Your task to perform on an android device: What's the weather? Image 0: 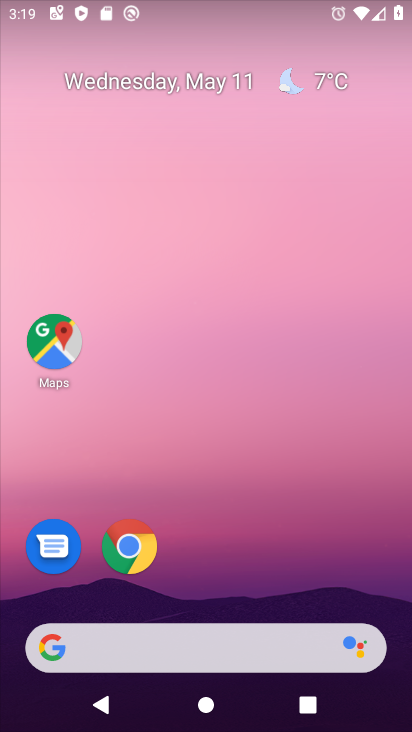
Step 0: drag from (218, 644) to (275, 56)
Your task to perform on an android device: What's the weather? Image 1: 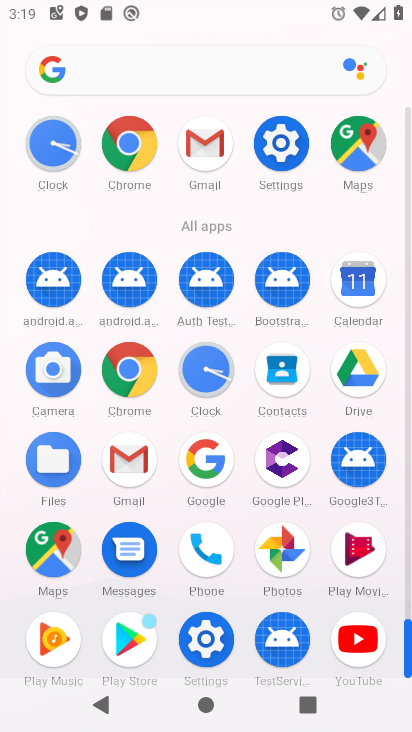
Step 1: click (145, 368)
Your task to perform on an android device: What's the weather? Image 2: 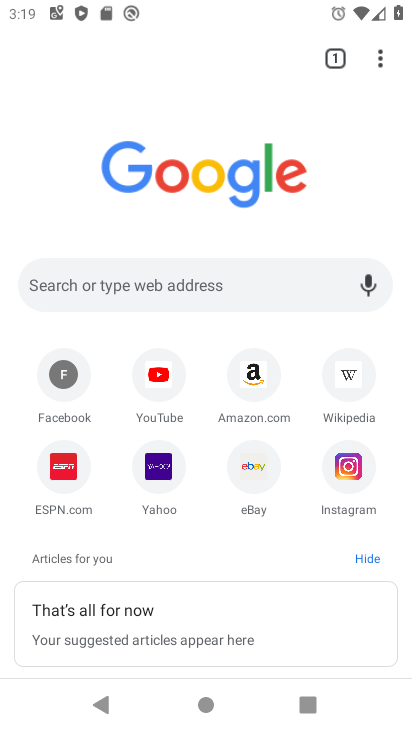
Step 2: click (241, 283)
Your task to perform on an android device: What's the weather? Image 3: 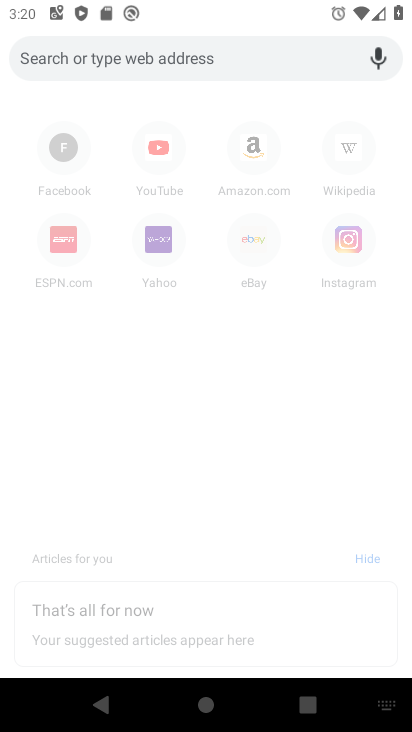
Step 3: type "whats the weather"
Your task to perform on an android device: What's the weather? Image 4: 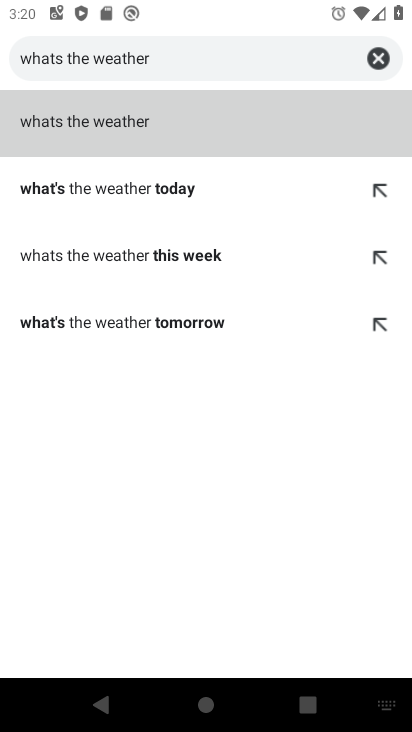
Step 4: click (118, 128)
Your task to perform on an android device: What's the weather? Image 5: 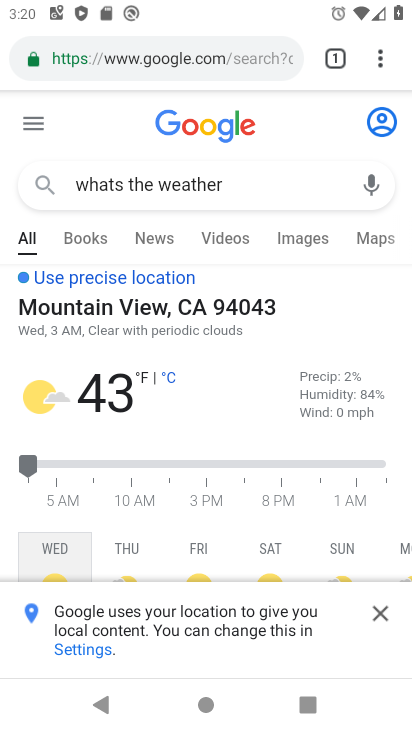
Step 5: task complete